Your task to perform on an android device: turn smart compose on in the gmail app Image 0: 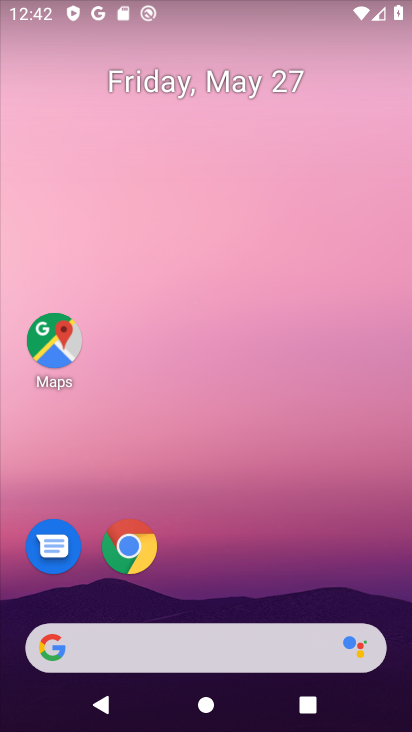
Step 0: drag from (189, 614) to (129, 201)
Your task to perform on an android device: turn smart compose on in the gmail app Image 1: 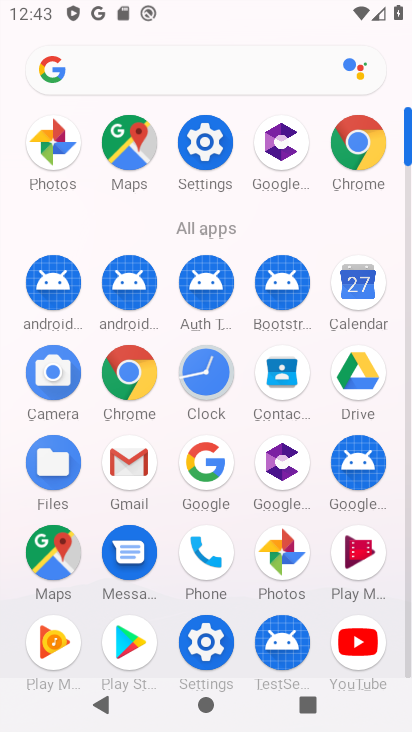
Step 1: click (124, 480)
Your task to perform on an android device: turn smart compose on in the gmail app Image 2: 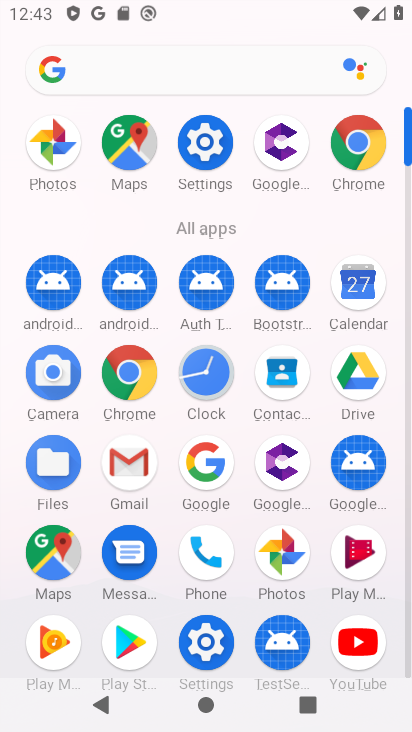
Step 2: click (132, 475)
Your task to perform on an android device: turn smart compose on in the gmail app Image 3: 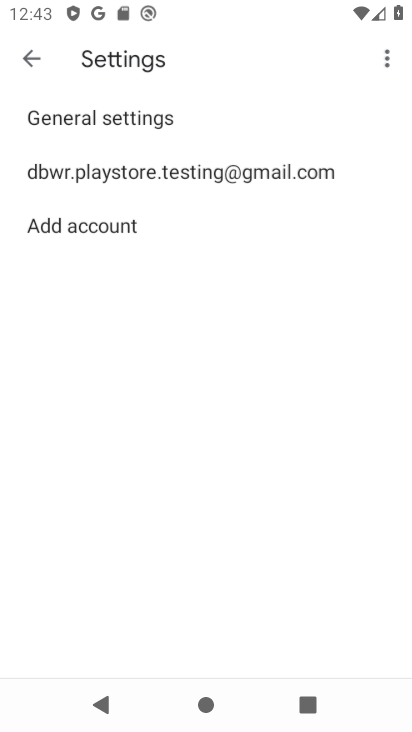
Step 3: click (134, 477)
Your task to perform on an android device: turn smart compose on in the gmail app Image 4: 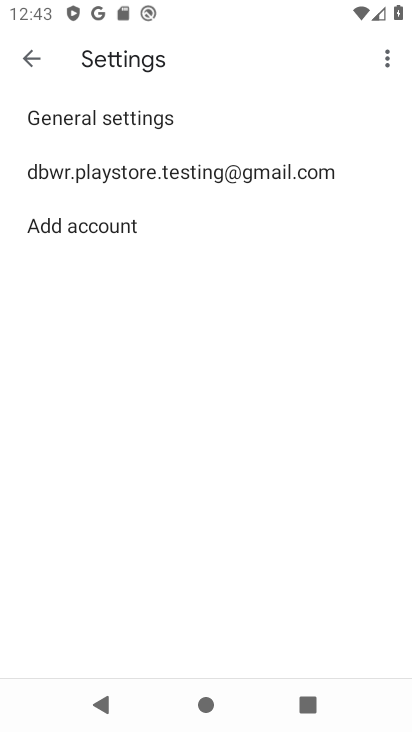
Step 4: click (128, 472)
Your task to perform on an android device: turn smart compose on in the gmail app Image 5: 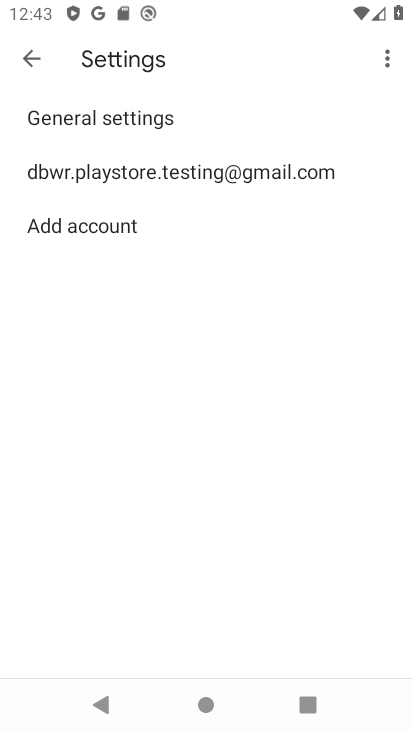
Step 5: click (112, 170)
Your task to perform on an android device: turn smart compose on in the gmail app Image 6: 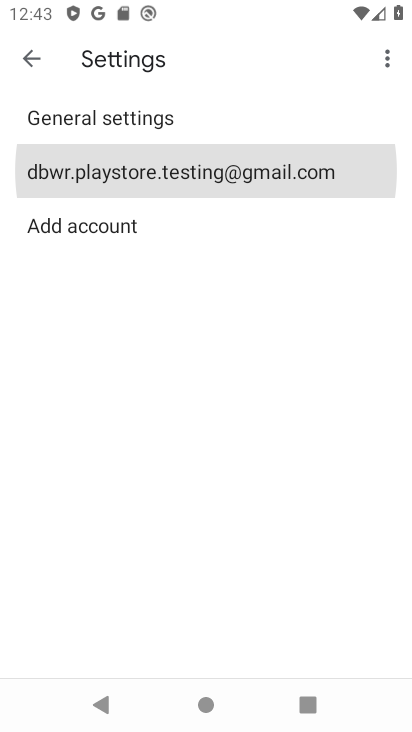
Step 6: click (112, 170)
Your task to perform on an android device: turn smart compose on in the gmail app Image 7: 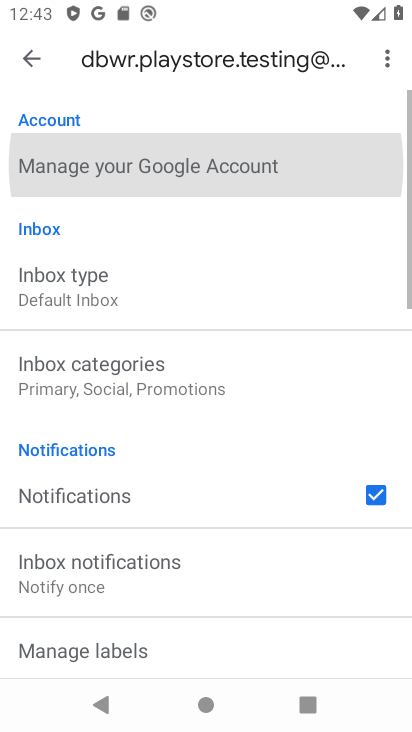
Step 7: click (113, 169)
Your task to perform on an android device: turn smart compose on in the gmail app Image 8: 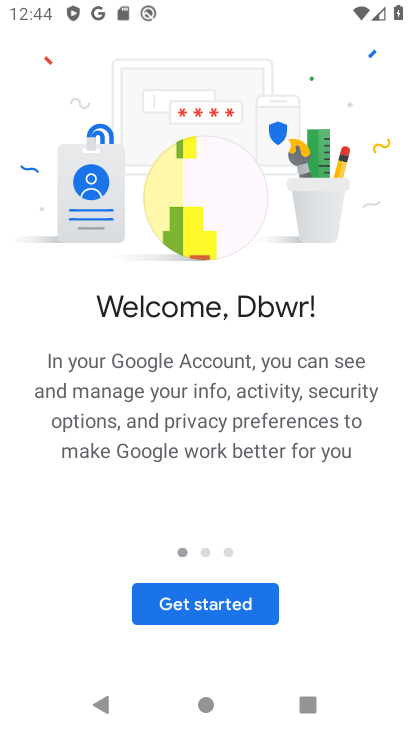
Step 8: click (219, 594)
Your task to perform on an android device: turn smart compose on in the gmail app Image 9: 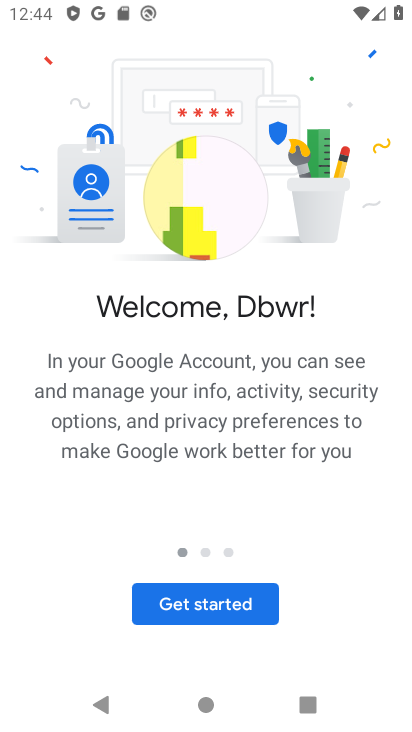
Step 9: click (218, 597)
Your task to perform on an android device: turn smart compose on in the gmail app Image 10: 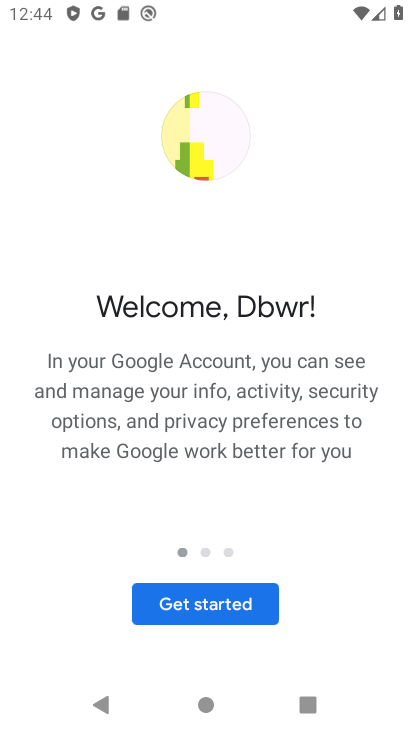
Step 10: click (226, 613)
Your task to perform on an android device: turn smart compose on in the gmail app Image 11: 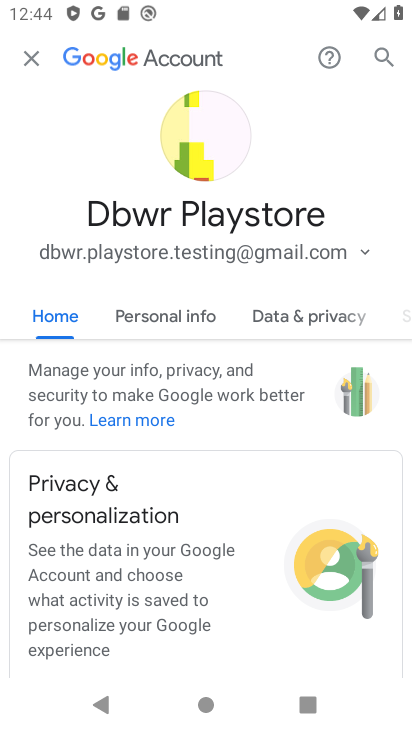
Step 11: click (235, 611)
Your task to perform on an android device: turn smart compose on in the gmail app Image 12: 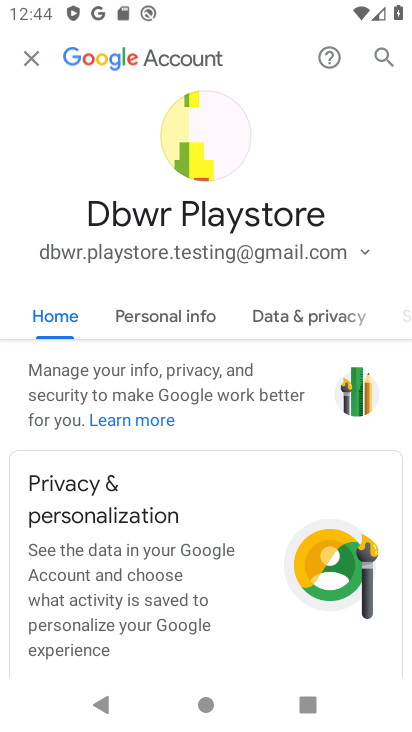
Step 12: click (235, 611)
Your task to perform on an android device: turn smart compose on in the gmail app Image 13: 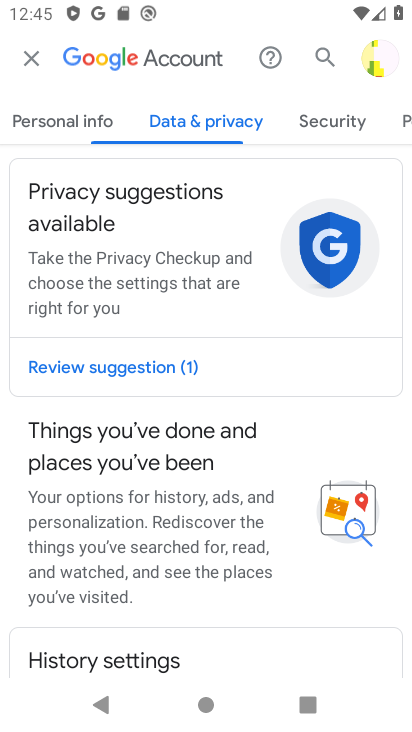
Step 13: click (24, 55)
Your task to perform on an android device: turn smart compose on in the gmail app Image 14: 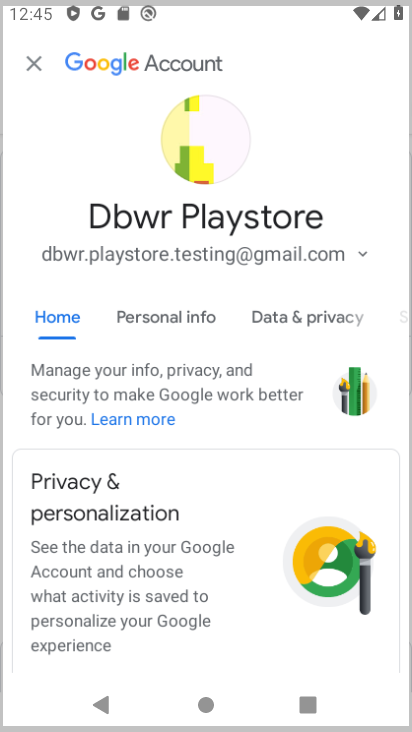
Step 14: click (28, 56)
Your task to perform on an android device: turn smart compose on in the gmail app Image 15: 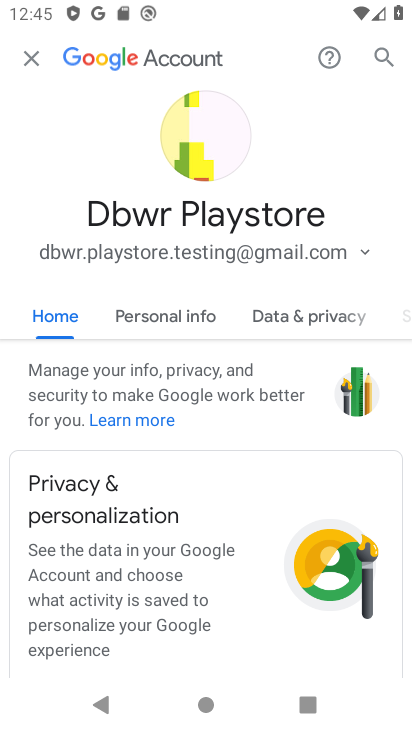
Step 15: click (31, 55)
Your task to perform on an android device: turn smart compose on in the gmail app Image 16: 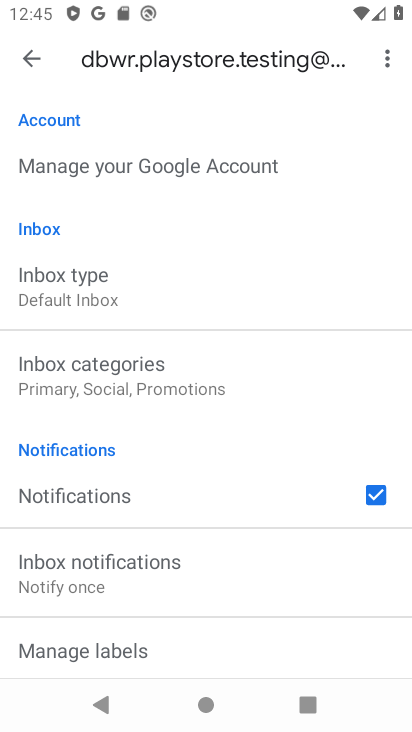
Step 16: task complete